Your task to perform on an android device: Open settings on Google Maps Image 0: 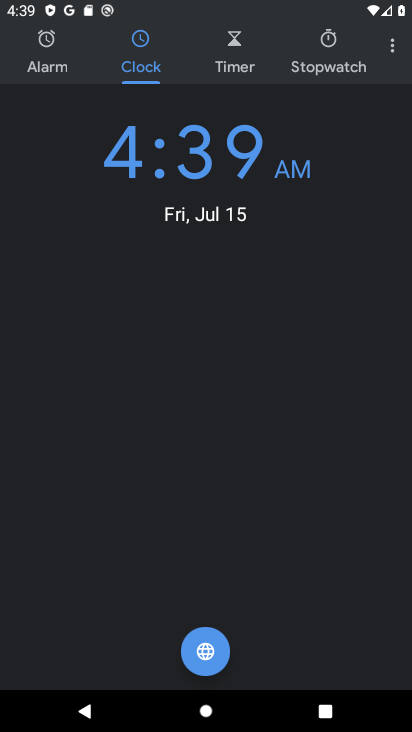
Step 0: press home button
Your task to perform on an android device: Open settings on Google Maps Image 1: 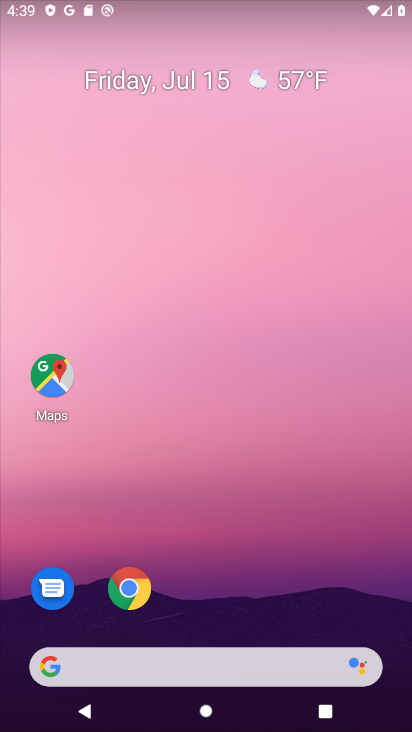
Step 1: drag from (301, 596) to (294, 51)
Your task to perform on an android device: Open settings on Google Maps Image 2: 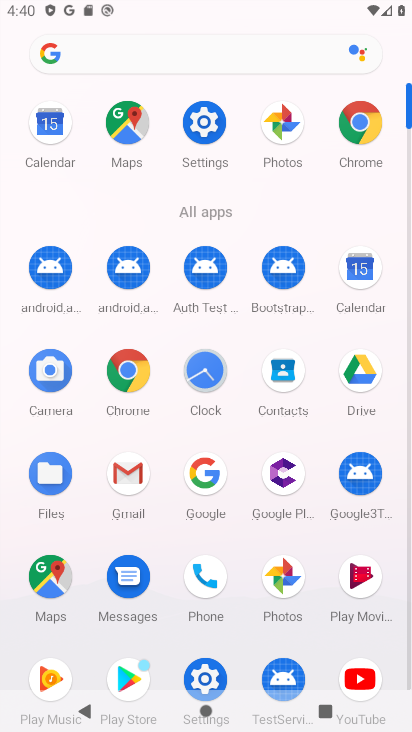
Step 2: click (59, 574)
Your task to perform on an android device: Open settings on Google Maps Image 3: 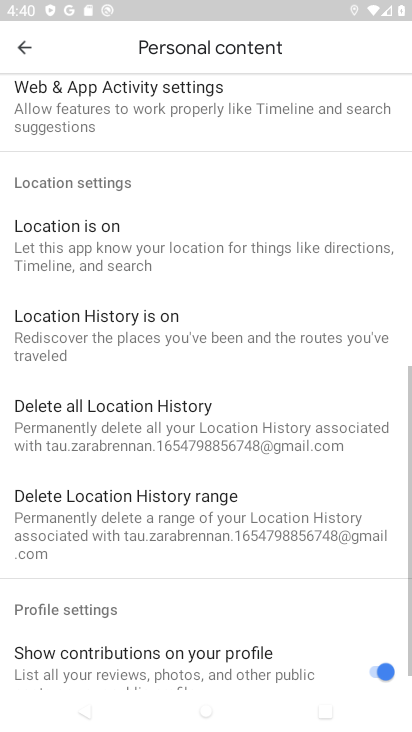
Step 3: click (30, 39)
Your task to perform on an android device: Open settings on Google Maps Image 4: 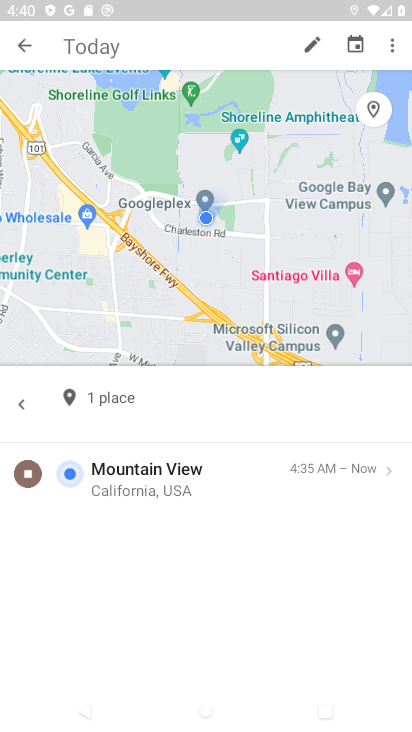
Step 4: click (20, 43)
Your task to perform on an android device: Open settings on Google Maps Image 5: 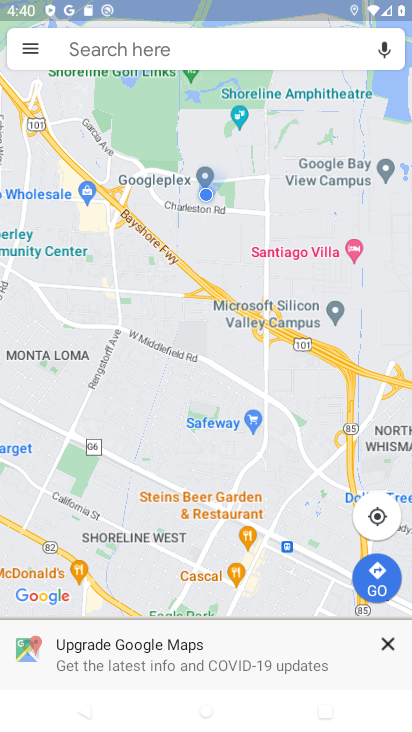
Step 5: click (20, 43)
Your task to perform on an android device: Open settings on Google Maps Image 6: 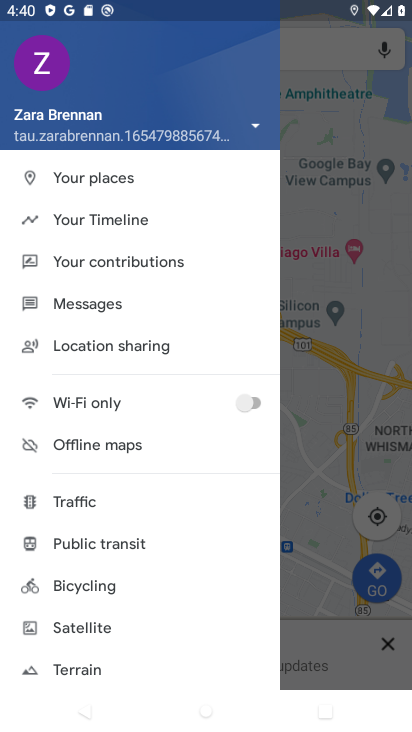
Step 6: drag from (130, 631) to (92, 171)
Your task to perform on an android device: Open settings on Google Maps Image 7: 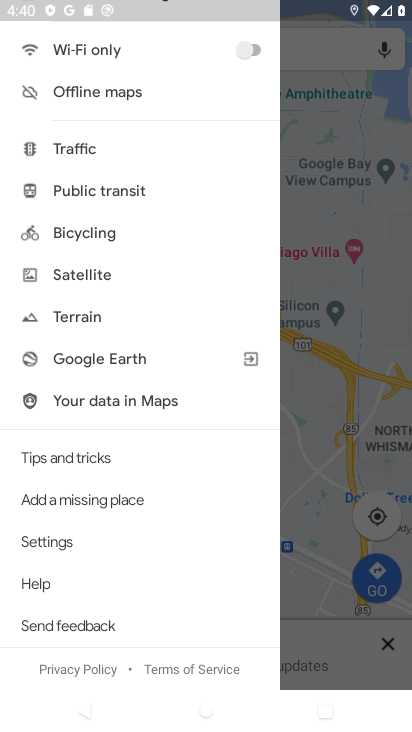
Step 7: click (48, 545)
Your task to perform on an android device: Open settings on Google Maps Image 8: 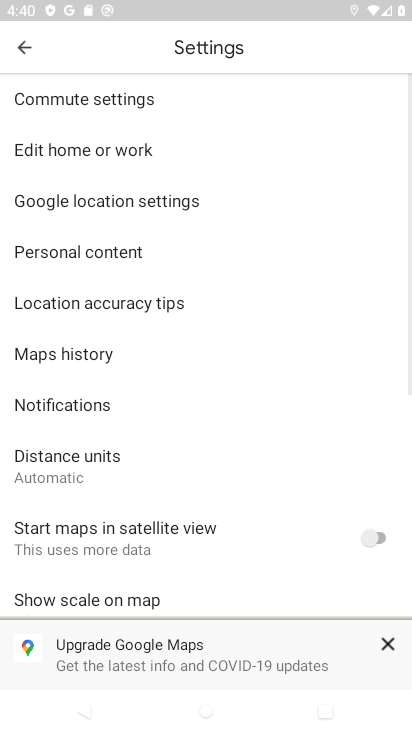
Step 8: task complete